Your task to perform on an android device: show emergency info Image 0: 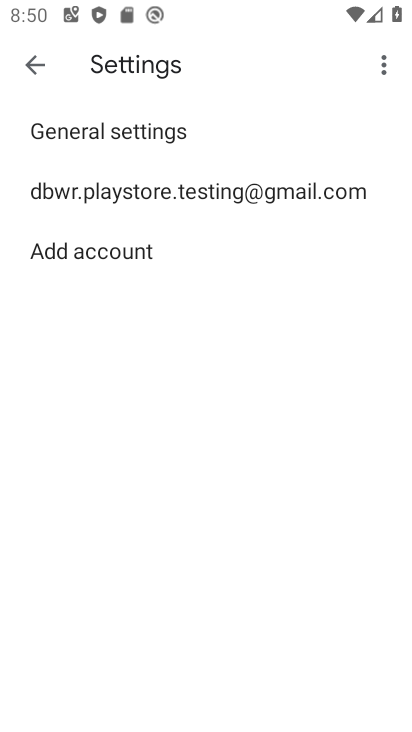
Step 0: press home button
Your task to perform on an android device: show emergency info Image 1: 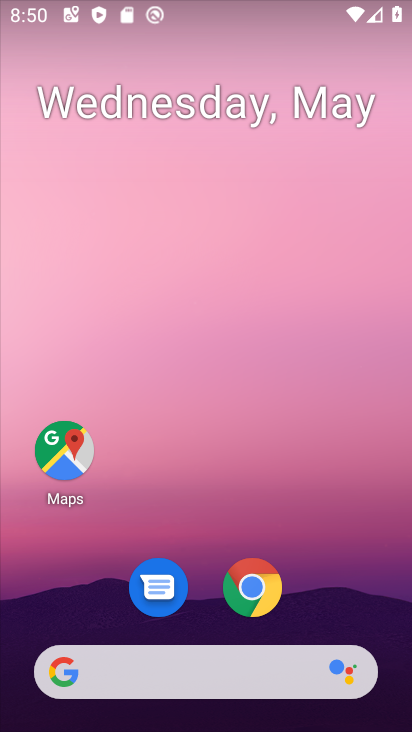
Step 1: drag from (357, 604) to (354, 27)
Your task to perform on an android device: show emergency info Image 2: 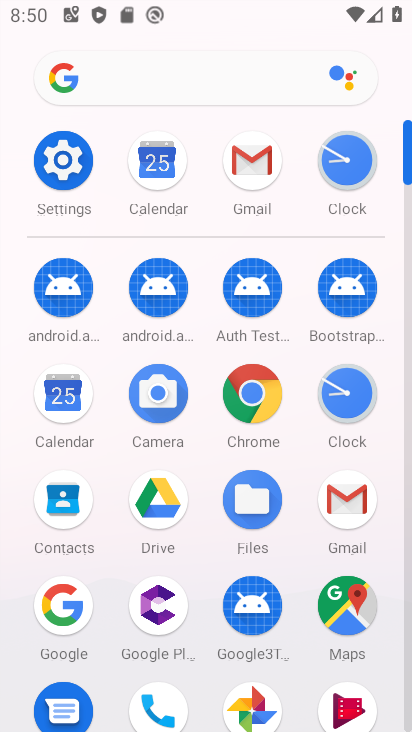
Step 2: click (409, 718)
Your task to perform on an android device: show emergency info Image 3: 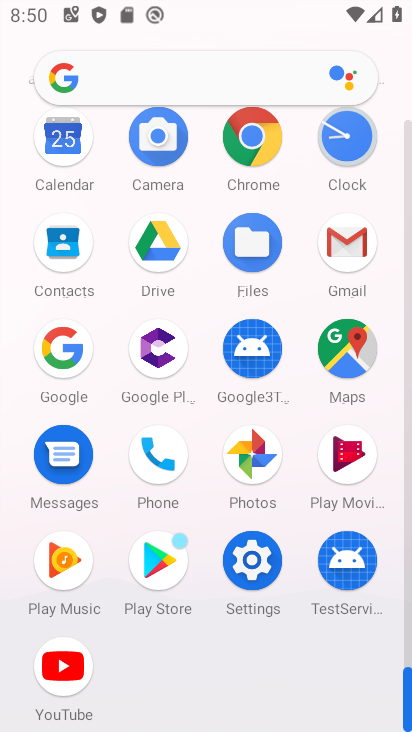
Step 3: click (257, 562)
Your task to perform on an android device: show emergency info Image 4: 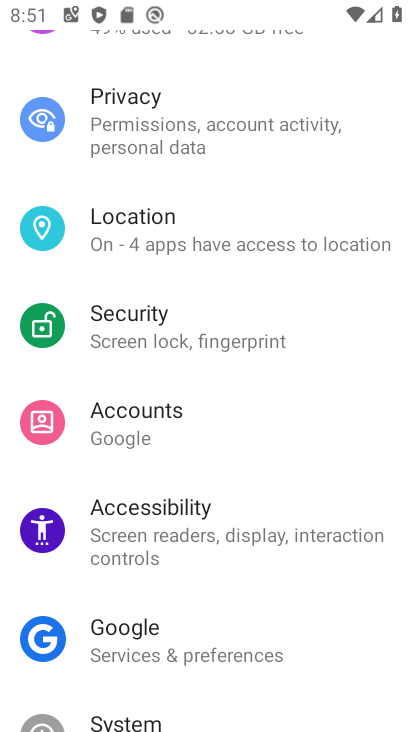
Step 4: drag from (293, 624) to (274, 231)
Your task to perform on an android device: show emergency info Image 5: 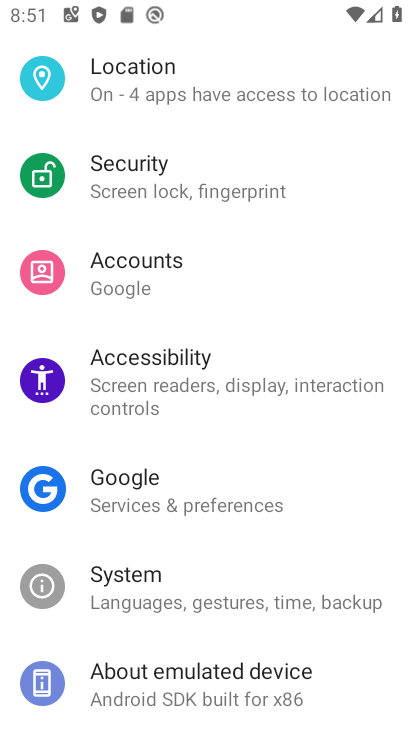
Step 5: click (155, 673)
Your task to perform on an android device: show emergency info Image 6: 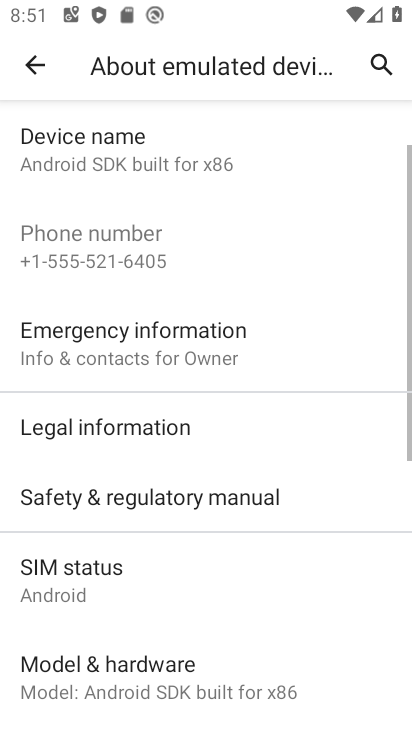
Step 6: click (146, 354)
Your task to perform on an android device: show emergency info Image 7: 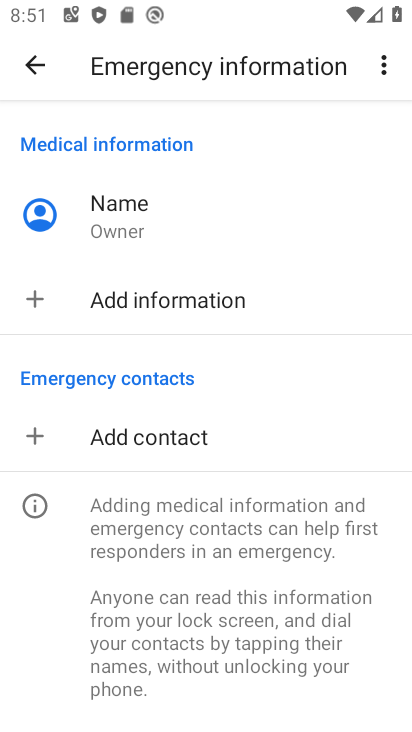
Step 7: task complete